Your task to perform on an android device: Search for "logitech g pro" on ebay, select the first entry, and add it to the cart. Image 0: 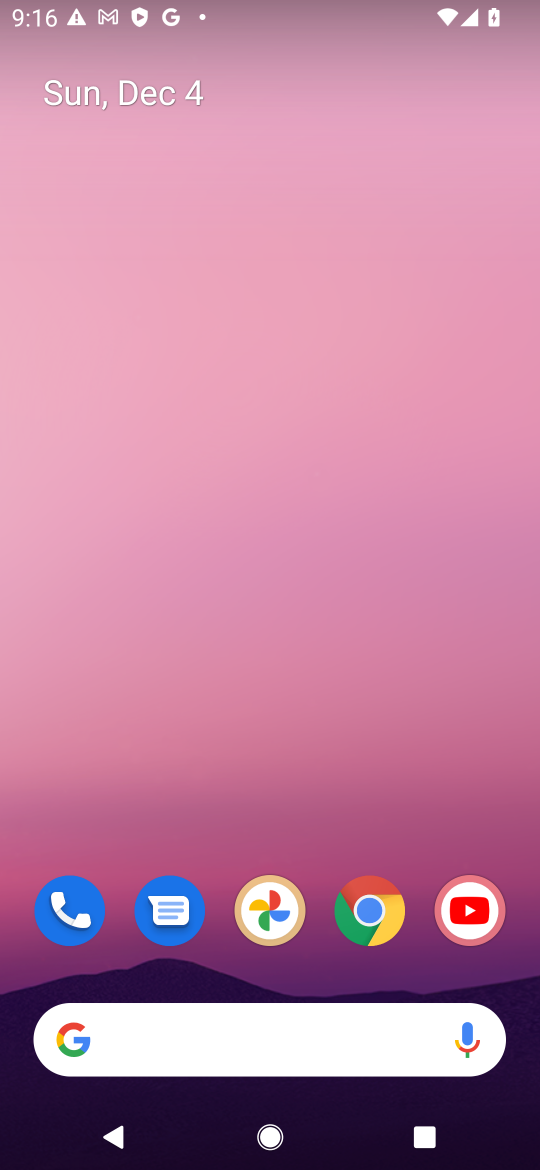
Step 0: drag from (349, 1103) to (343, 80)
Your task to perform on an android device: Search for "logitech g pro" on ebay, select the first entry, and add it to the cart. Image 1: 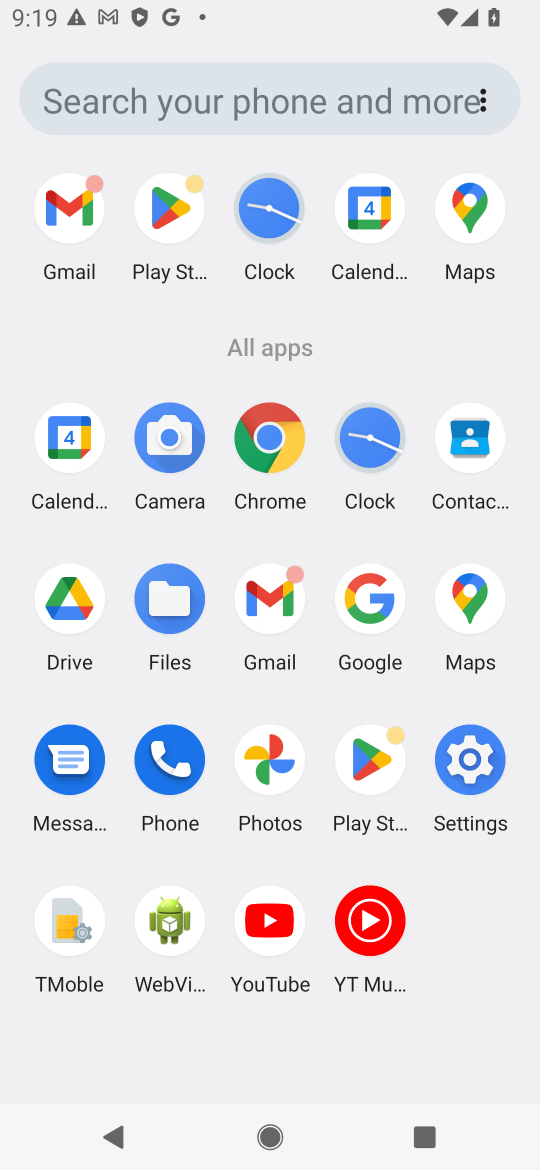
Step 1: click (272, 439)
Your task to perform on an android device: Search for "logitech g pro" on ebay, select the first entry, and add it to the cart. Image 2: 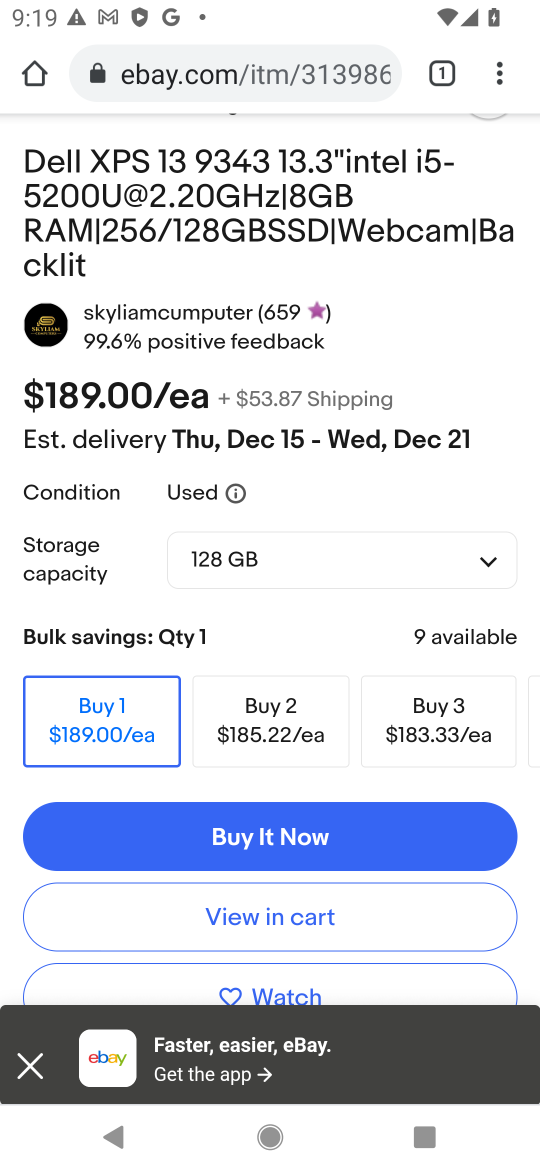
Step 2: click (176, 63)
Your task to perform on an android device: Search for "logitech g pro" on ebay, select the first entry, and add it to the cart. Image 3: 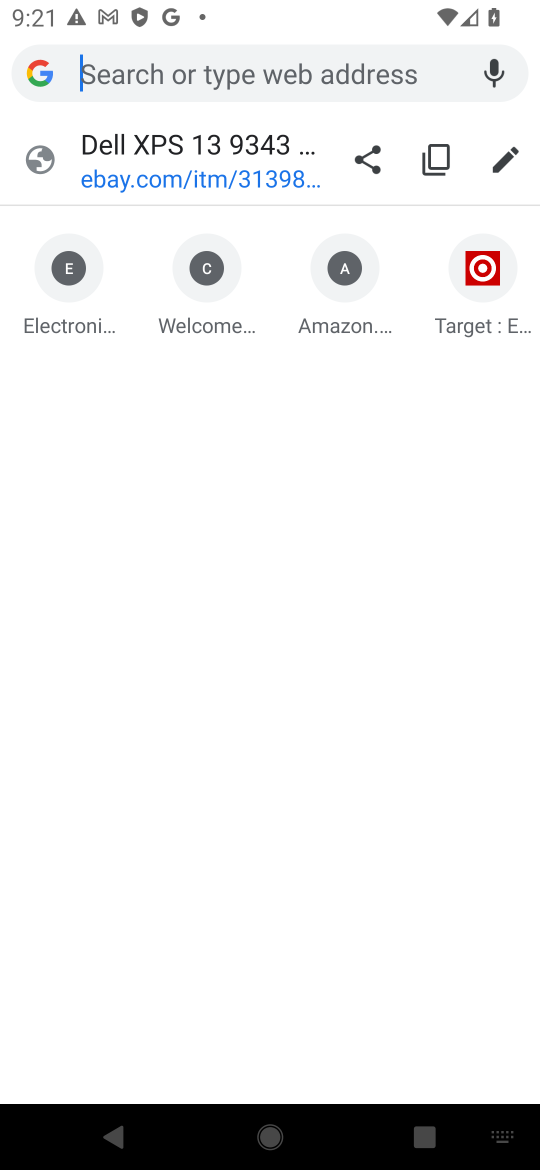
Step 3: type " ebay"
Your task to perform on an android device: Search for "logitech g pro" on ebay, select the first entry, and add it to the cart. Image 4: 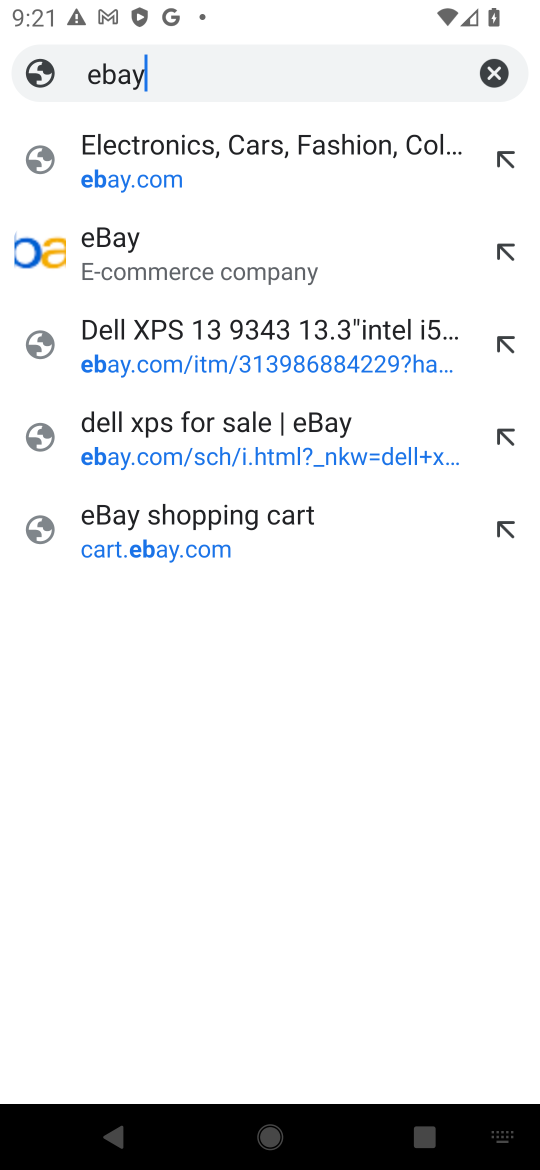
Step 4: type ""
Your task to perform on an android device: Search for "logitech g pro" on ebay, select the first entry, and add it to the cart. Image 5: 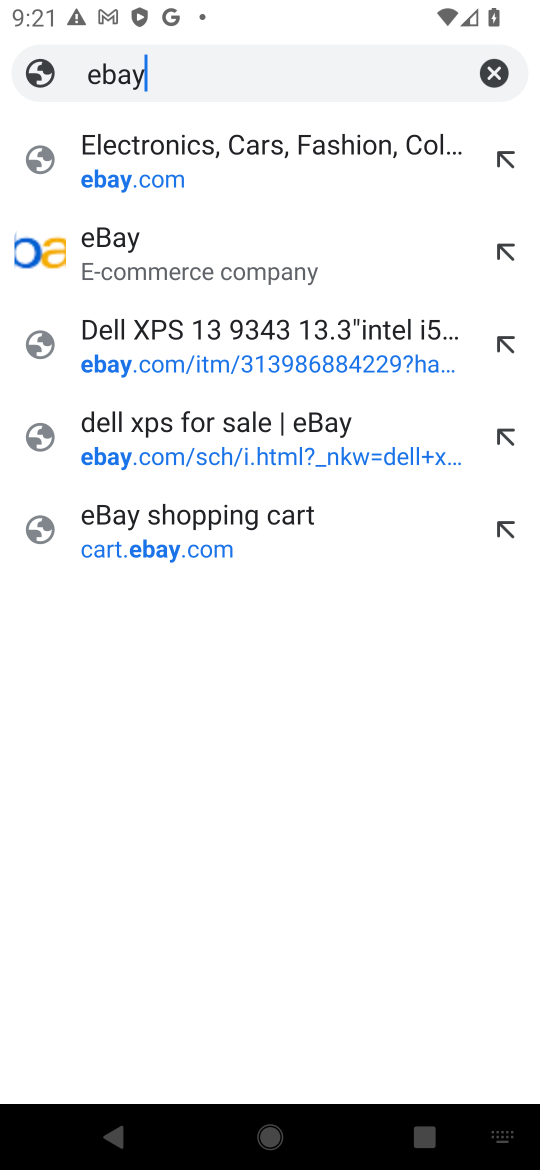
Step 5: click (125, 174)
Your task to perform on an android device: Search for "logitech g pro" on ebay, select the first entry, and add it to the cart. Image 6: 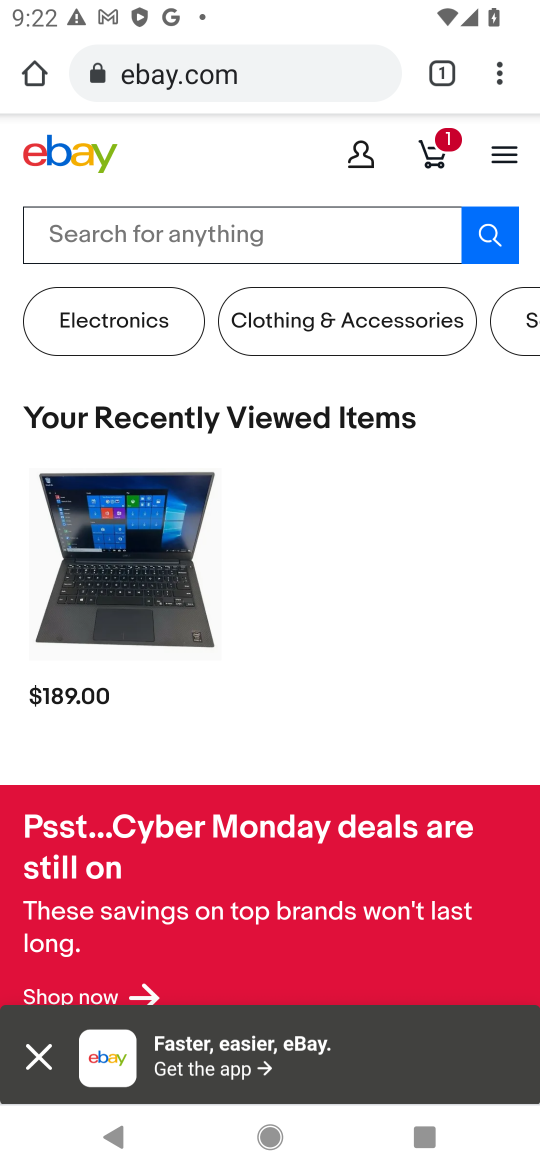
Step 6: click (189, 221)
Your task to perform on an android device: Search for "logitech g pro" on ebay, select the first entry, and add it to the cart. Image 7: 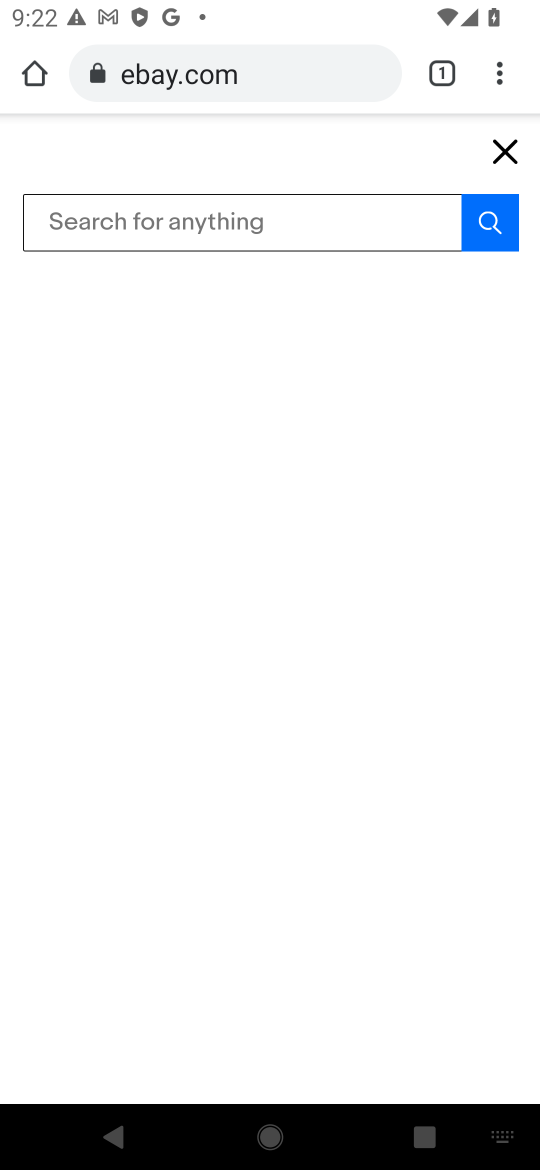
Step 7: type "logitech g pro"
Your task to perform on an android device: Search for "logitech g pro" on ebay, select the first entry, and add it to the cart. Image 8: 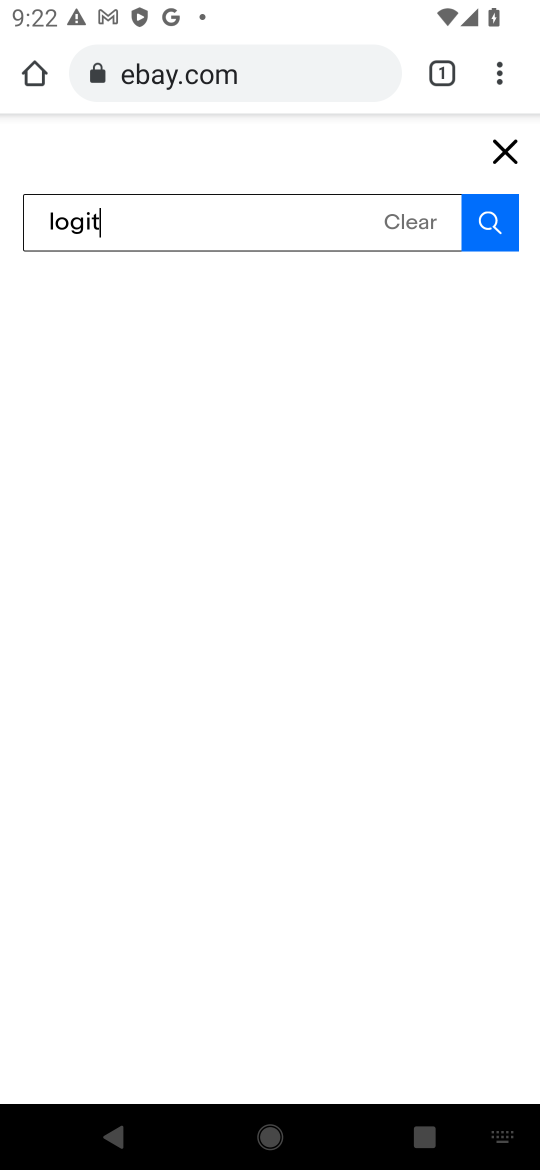
Step 8: type ""
Your task to perform on an android device: Search for "logitech g pro" on ebay, select the first entry, and add it to the cart. Image 9: 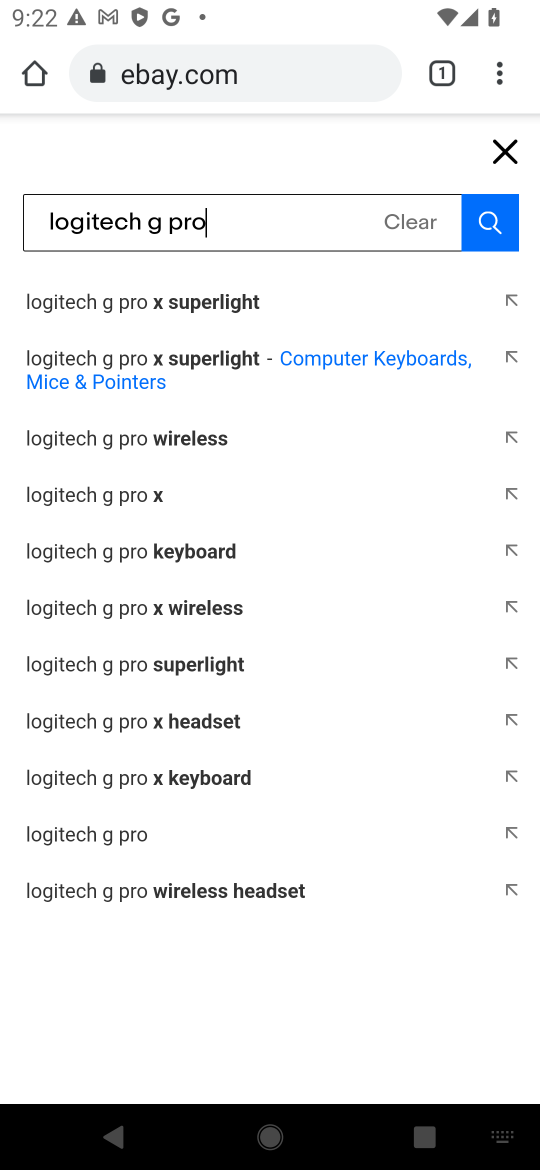
Step 9: click (498, 231)
Your task to perform on an android device: Search for "logitech g pro" on ebay, select the first entry, and add it to the cart. Image 10: 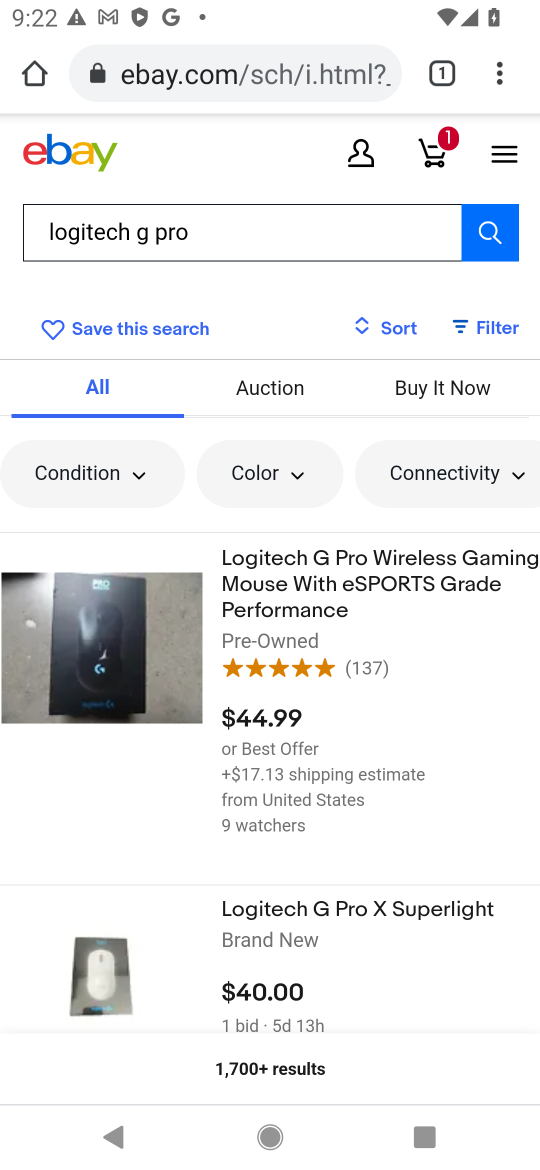
Step 10: click (104, 687)
Your task to perform on an android device: Search for "logitech g pro" on ebay, select the first entry, and add it to the cart. Image 11: 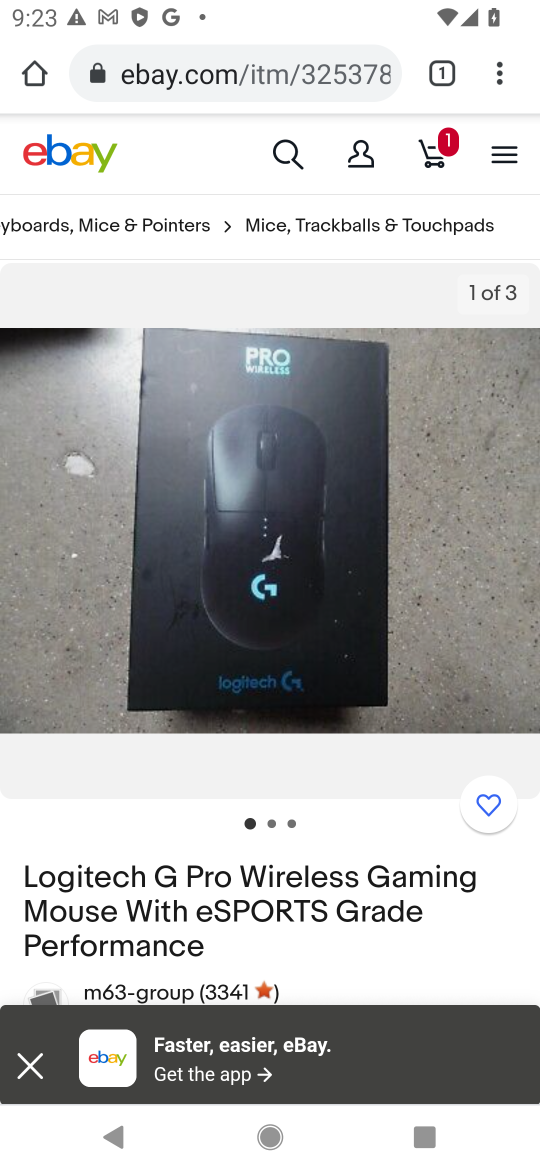
Step 11: drag from (315, 874) to (281, 141)
Your task to perform on an android device: Search for "logitech g pro" on ebay, select the first entry, and add it to the cart. Image 12: 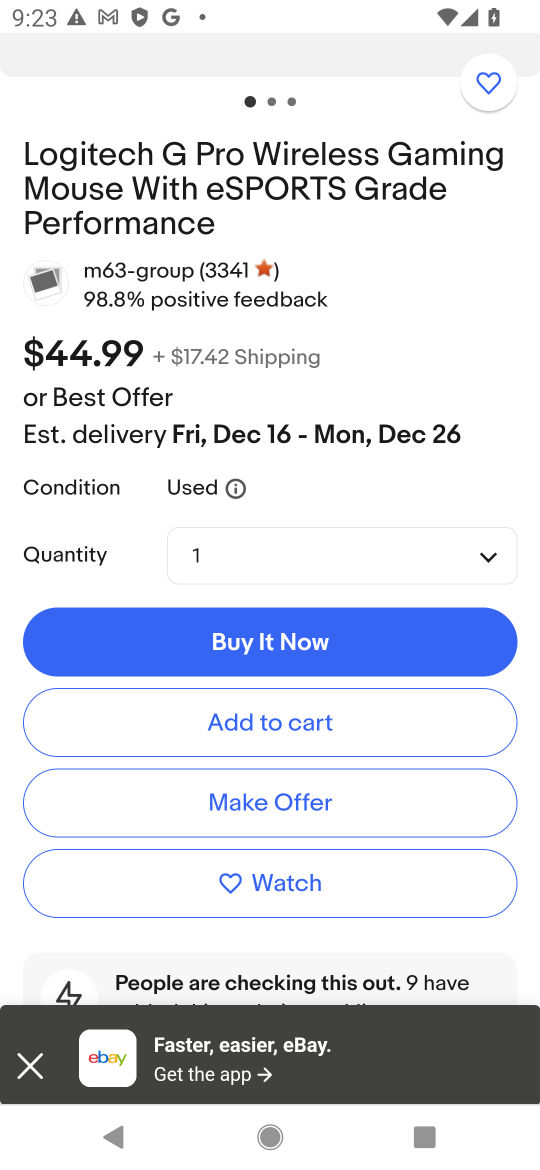
Step 12: click (261, 730)
Your task to perform on an android device: Search for "logitech g pro" on ebay, select the first entry, and add it to the cart. Image 13: 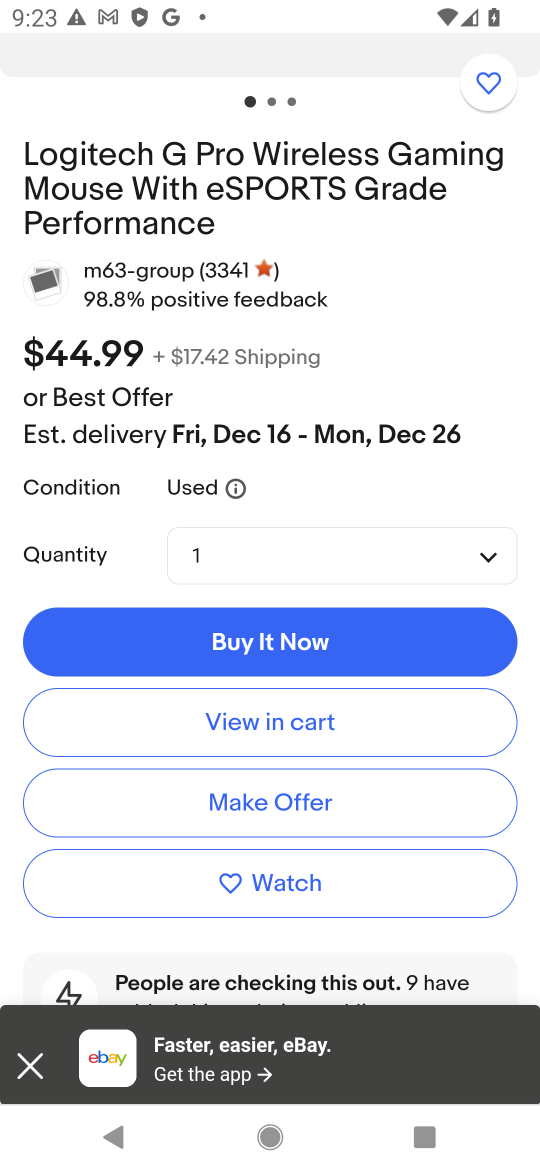
Step 13: task complete